Your task to perform on an android device: What is the news today? Image 0: 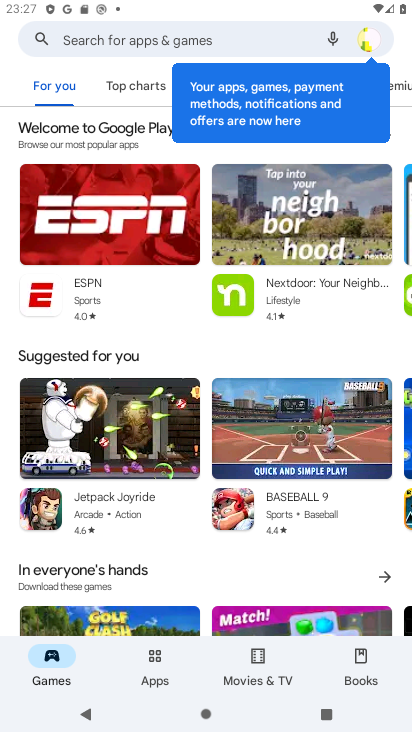
Step 0: drag from (77, 715) to (350, 719)
Your task to perform on an android device: What is the news today? Image 1: 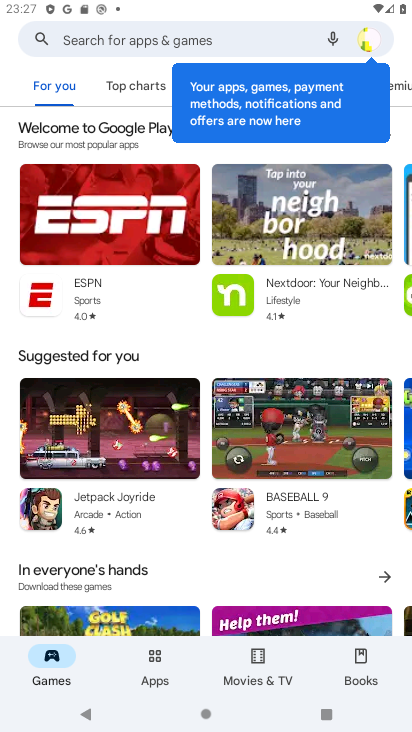
Step 1: press home button
Your task to perform on an android device: What is the news today? Image 2: 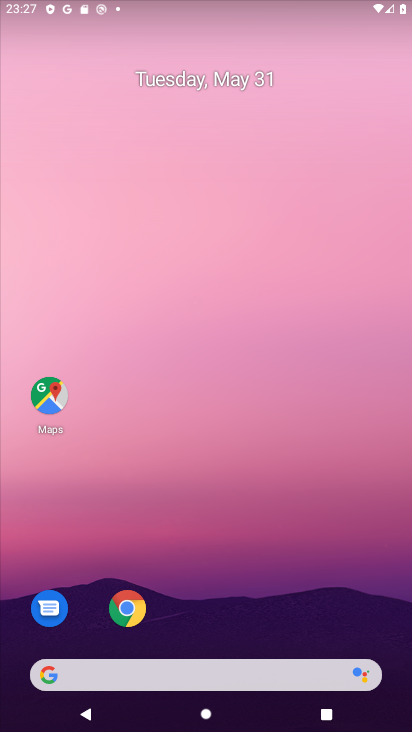
Step 2: click (107, 606)
Your task to perform on an android device: What is the news today? Image 3: 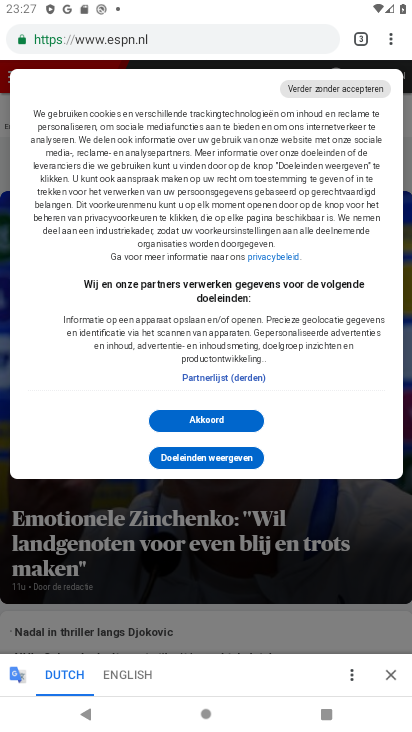
Step 3: click (220, 49)
Your task to perform on an android device: What is the news today? Image 4: 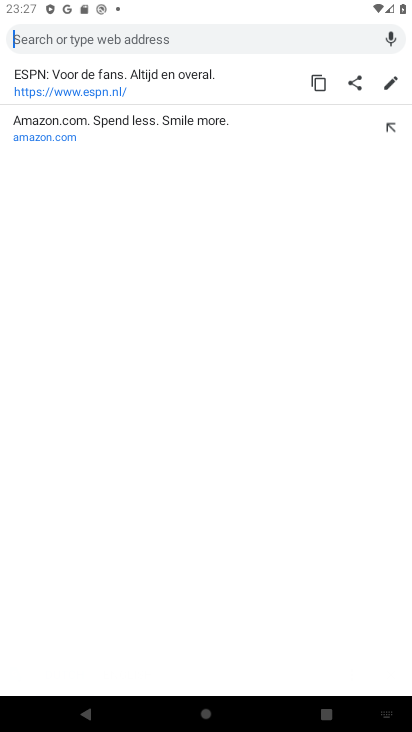
Step 4: type "What is the news today?"
Your task to perform on an android device: What is the news today? Image 5: 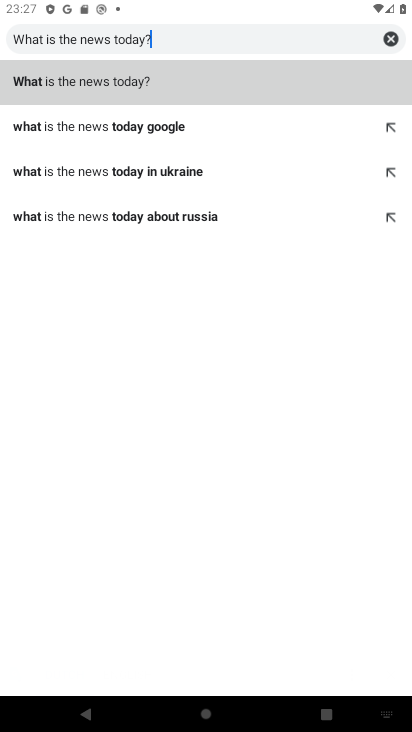
Step 5: click (170, 69)
Your task to perform on an android device: What is the news today? Image 6: 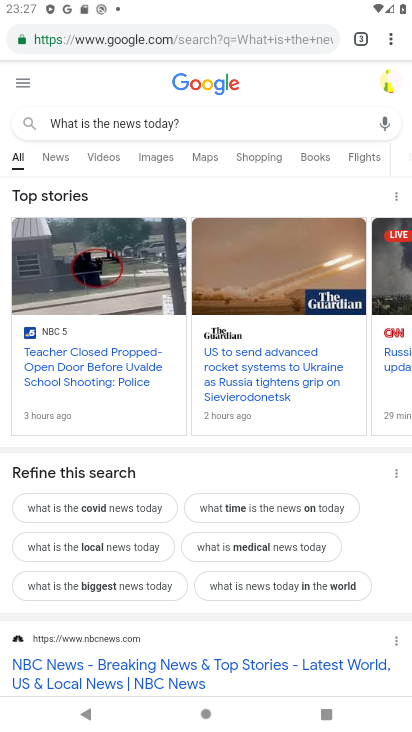
Step 6: task complete